Your task to perform on an android device: turn on improve location accuracy Image 0: 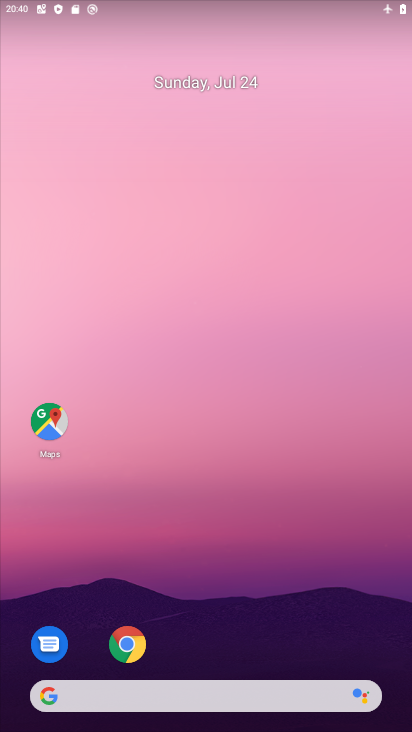
Step 0: drag from (367, 655) to (333, 311)
Your task to perform on an android device: turn on improve location accuracy Image 1: 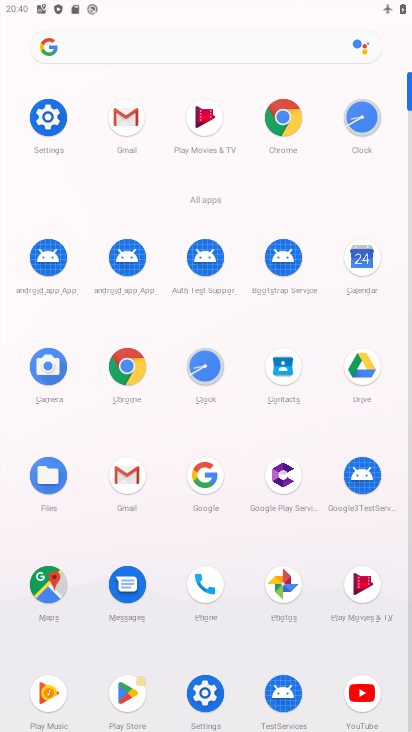
Step 1: click (206, 695)
Your task to perform on an android device: turn on improve location accuracy Image 2: 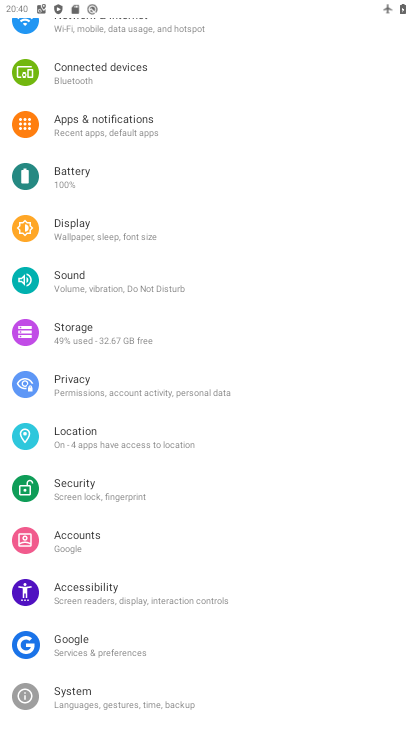
Step 2: click (81, 429)
Your task to perform on an android device: turn on improve location accuracy Image 3: 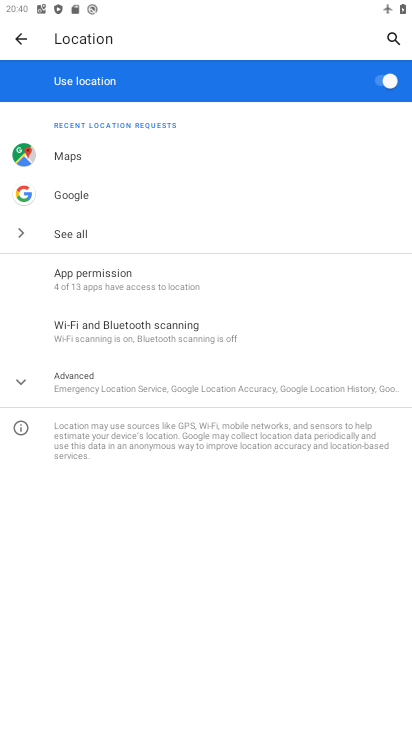
Step 3: click (21, 377)
Your task to perform on an android device: turn on improve location accuracy Image 4: 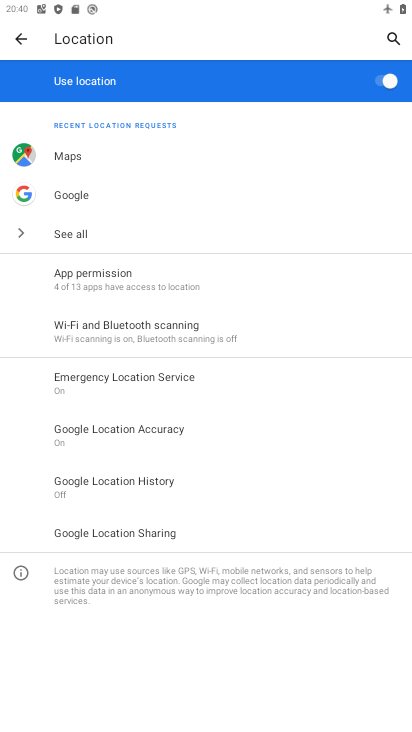
Step 4: click (110, 428)
Your task to perform on an android device: turn on improve location accuracy Image 5: 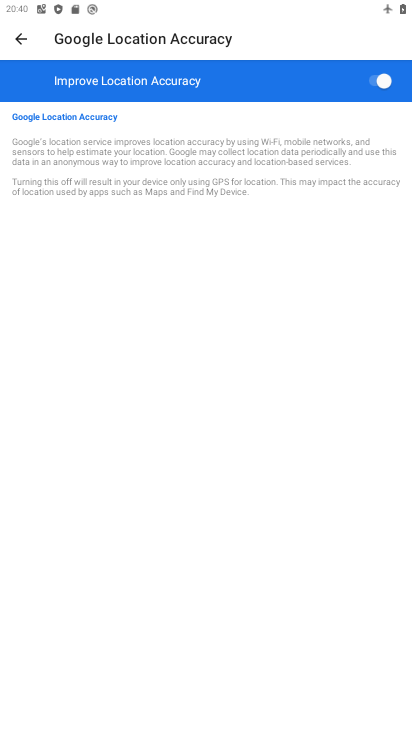
Step 5: task complete